Your task to perform on an android device: Turn on the flashlight Image 0: 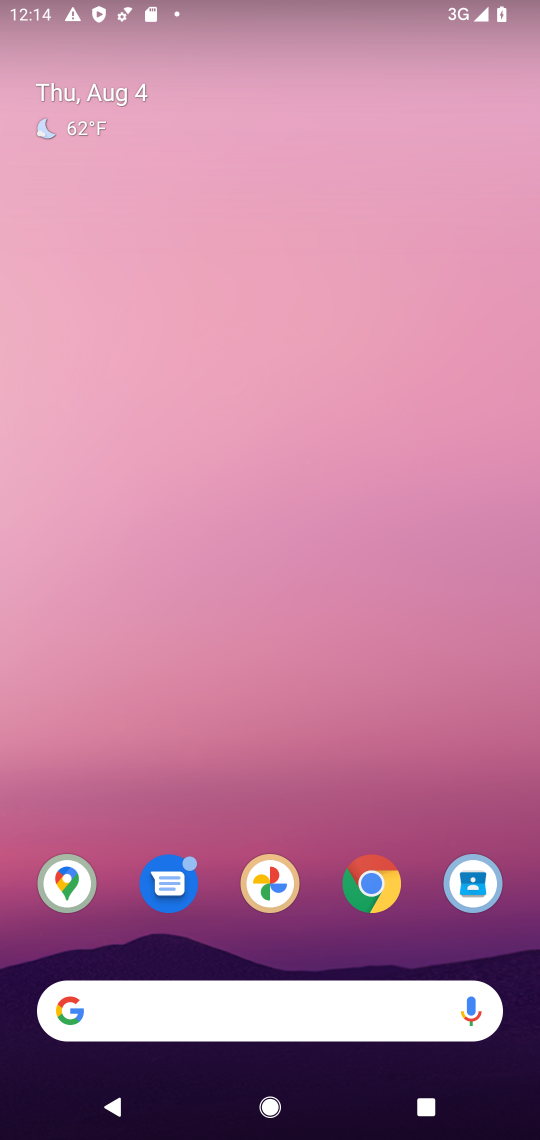
Step 0: drag from (309, 895) to (289, 183)
Your task to perform on an android device: Turn on the flashlight Image 1: 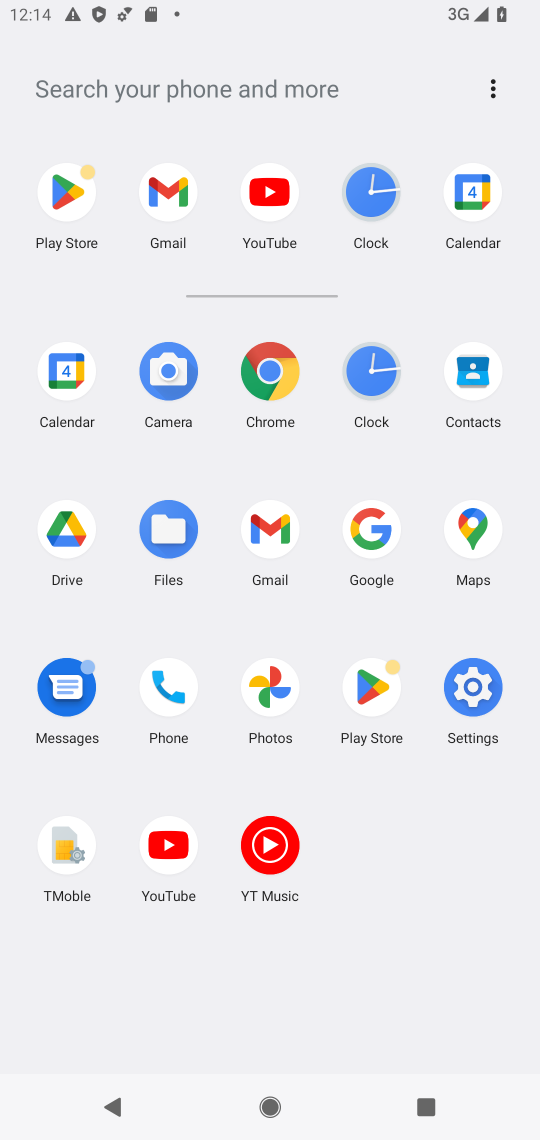
Step 1: click (486, 693)
Your task to perform on an android device: Turn on the flashlight Image 2: 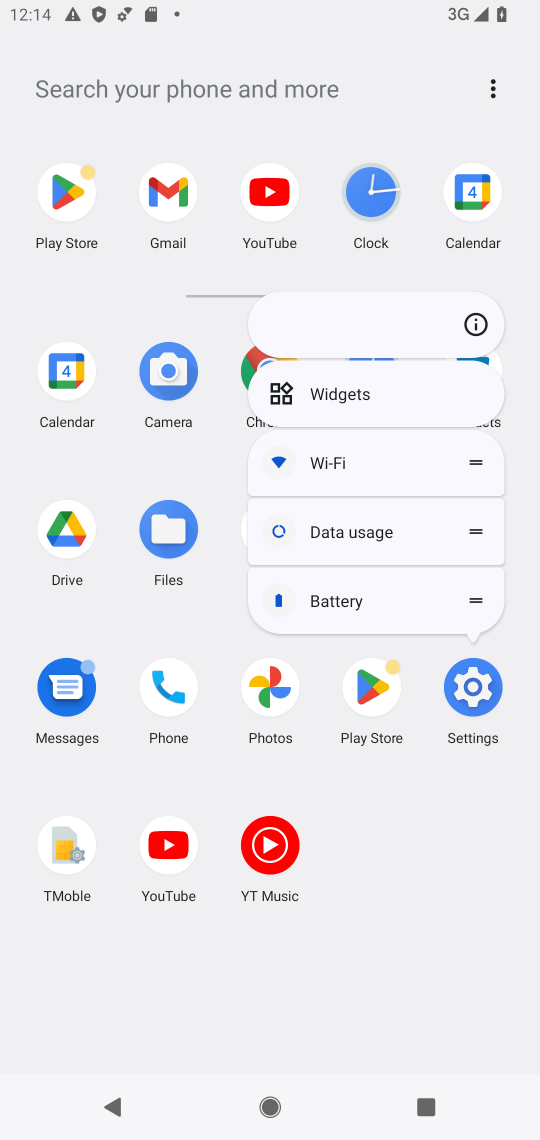
Step 2: click (501, 688)
Your task to perform on an android device: Turn on the flashlight Image 3: 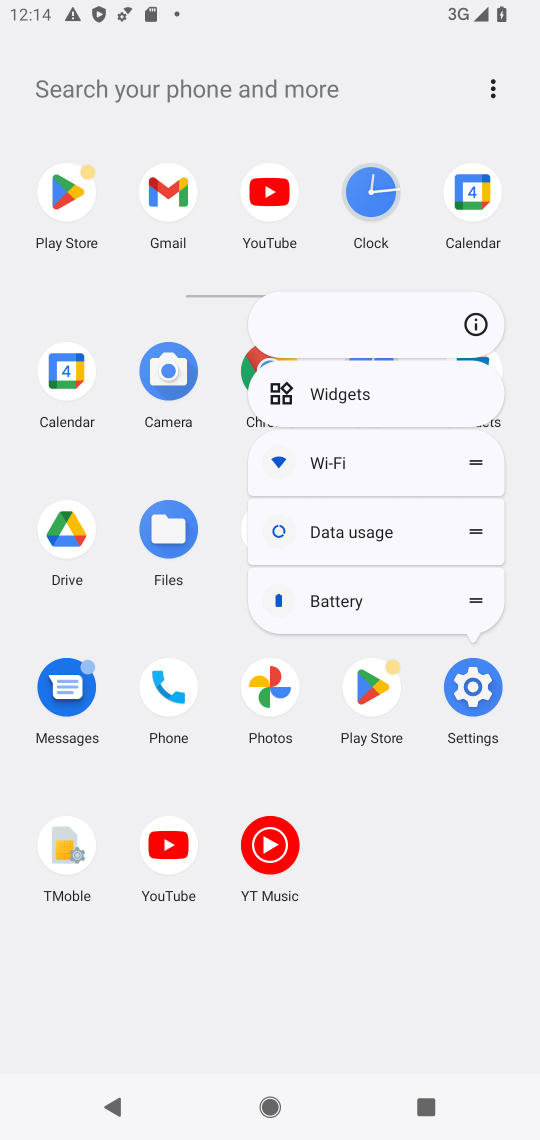
Step 3: click (486, 696)
Your task to perform on an android device: Turn on the flashlight Image 4: 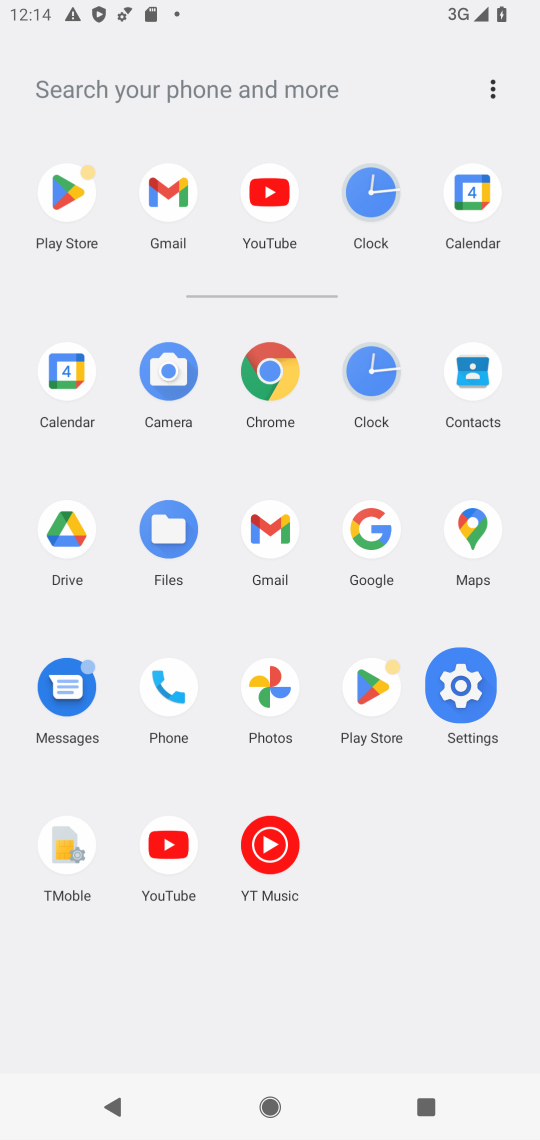
Step 4: click (477, 696)
Your task to perform on an android device: Turn on the flashlight Image 5: 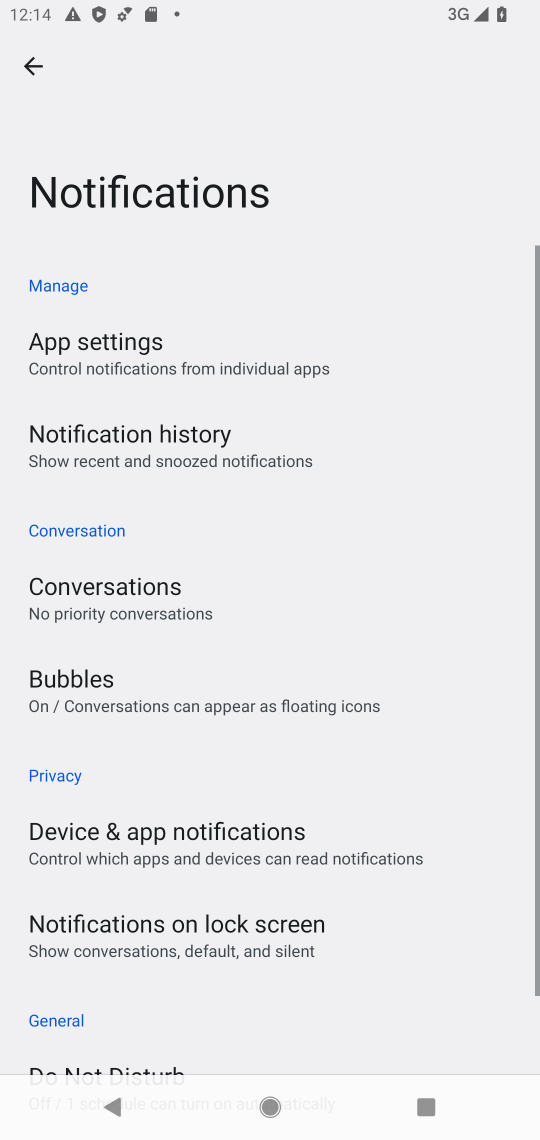
Step 5: drag from (381, 798) to (399, 570)
Your task to perform on an android device: Turn on the flashlight Image 6: 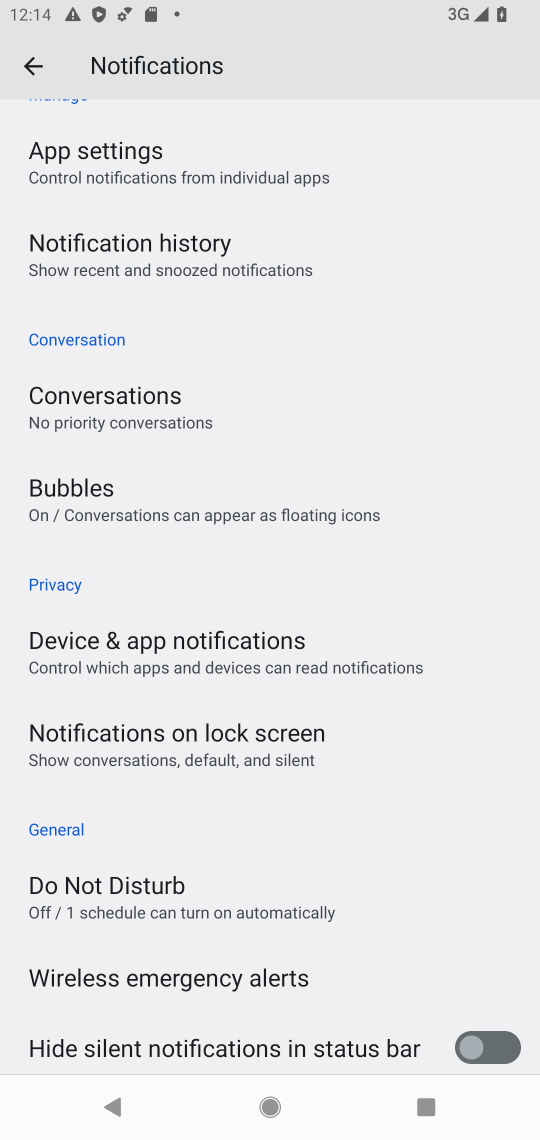
Step 6: click (46, 46)
Your task to perform on an android device: Turn on the flashlight Image 7: 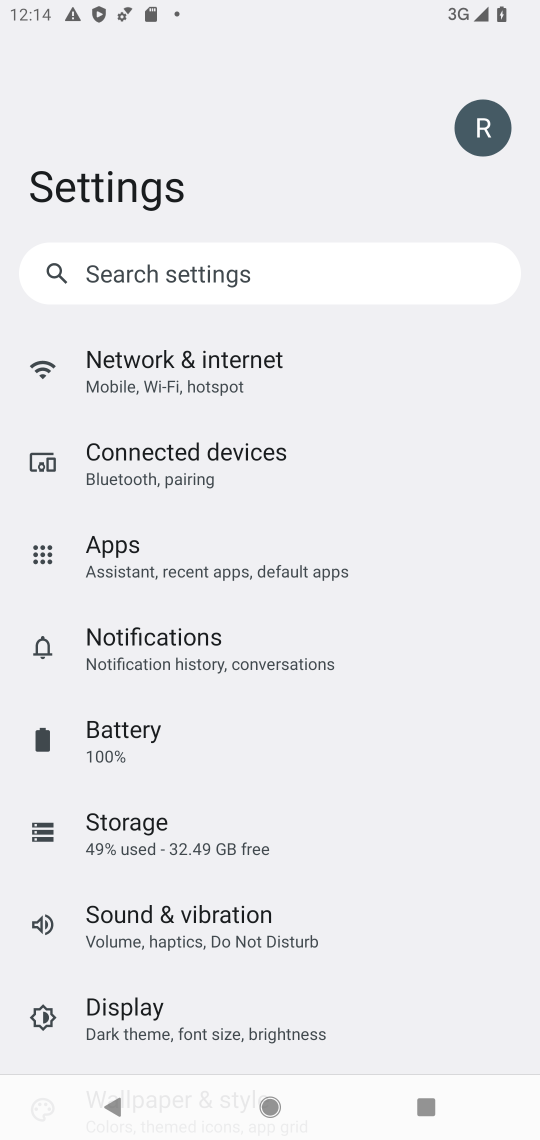
Step 7: click (314, 265)
Your task to perform on an android device: Turn on the flashlight Image 8: 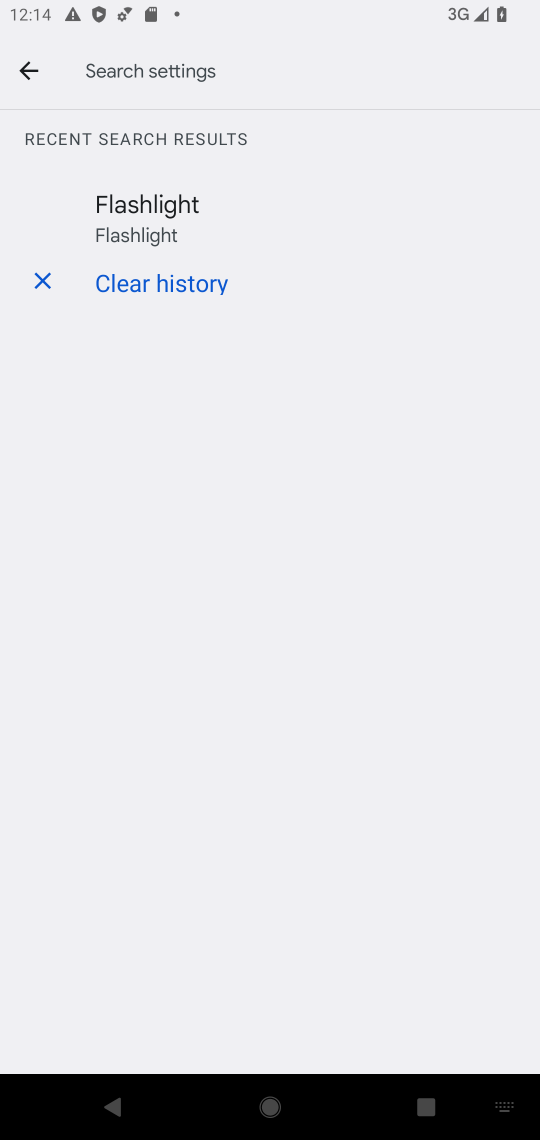
Step 8: click (137, 215)
Your task to perform on an android device: Turn on the flashlight Image 9: 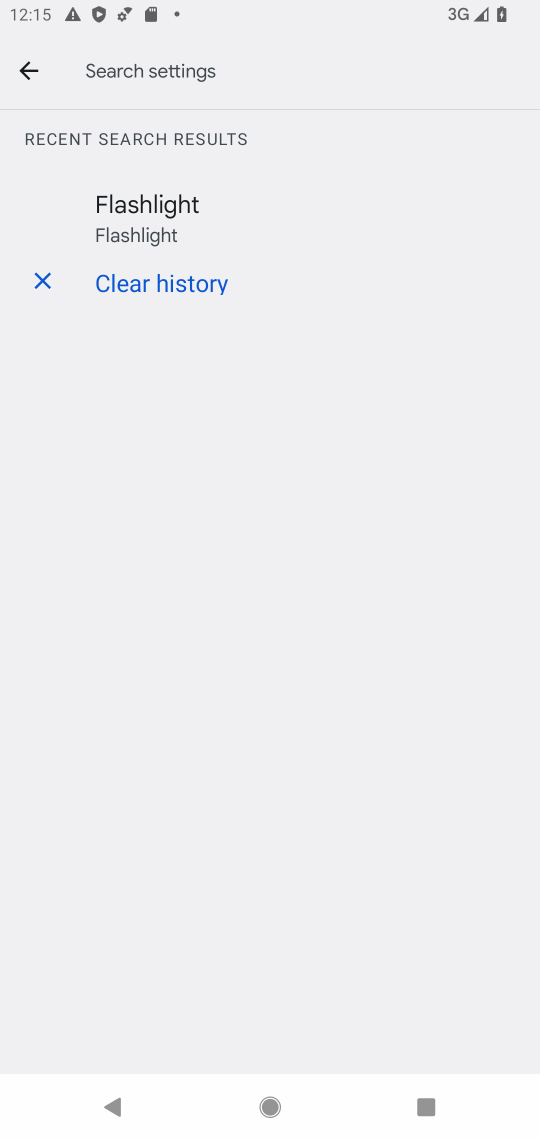
Step 9: drag from (321, 792) to (338, 284)
Your task to perform on an android device: Turn on the flashlight Image 10: 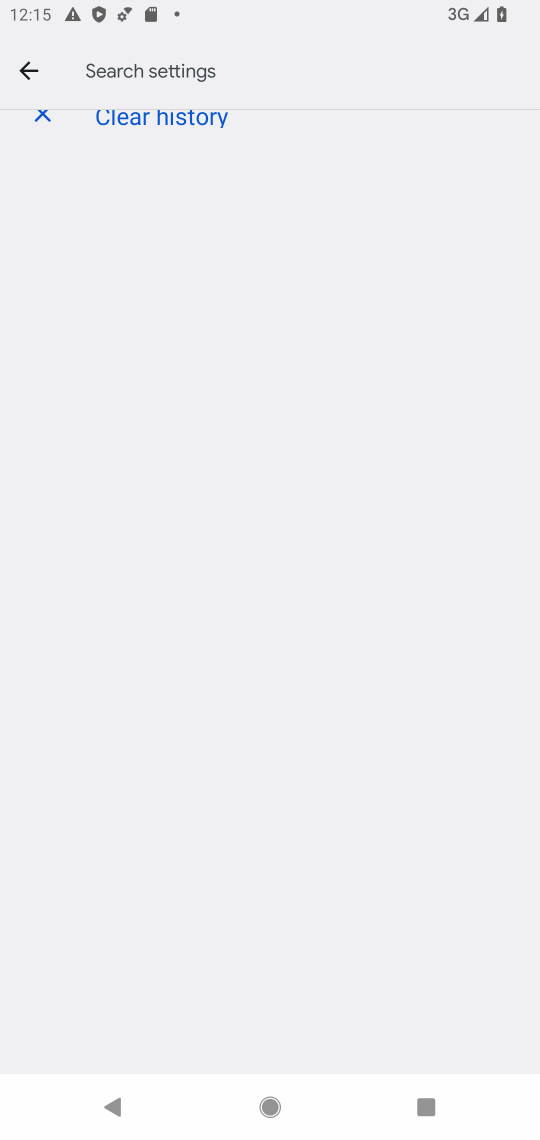
Step 10: drag from (247, 239) to (389, 1070)
Your task to perform on an android device: Turn on the flashlight Image 11: 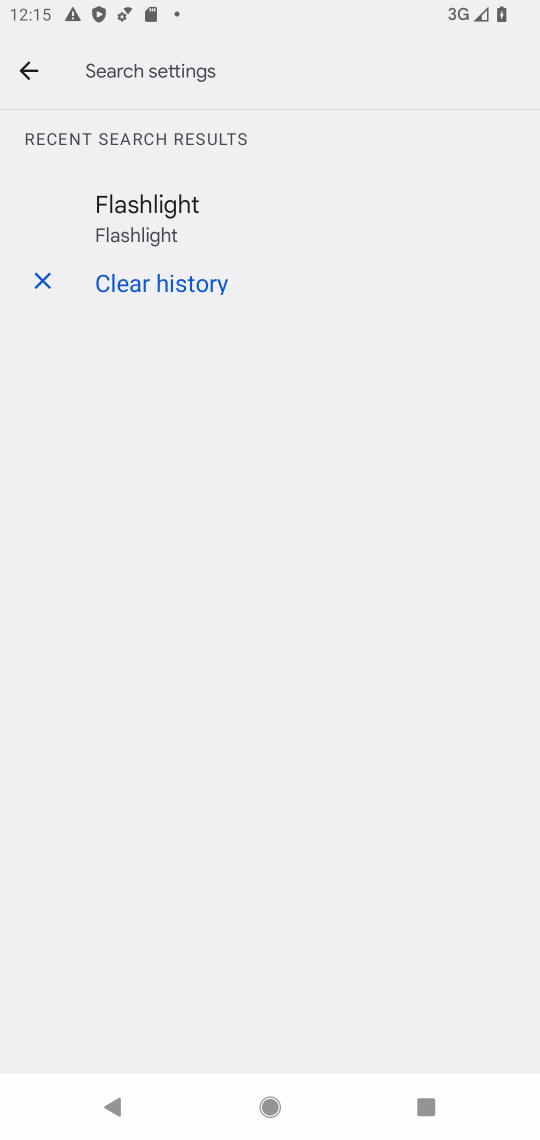
Step 11: click (231, 229)
Your task to perform on an android device: Turn on the flashlight Image 12: 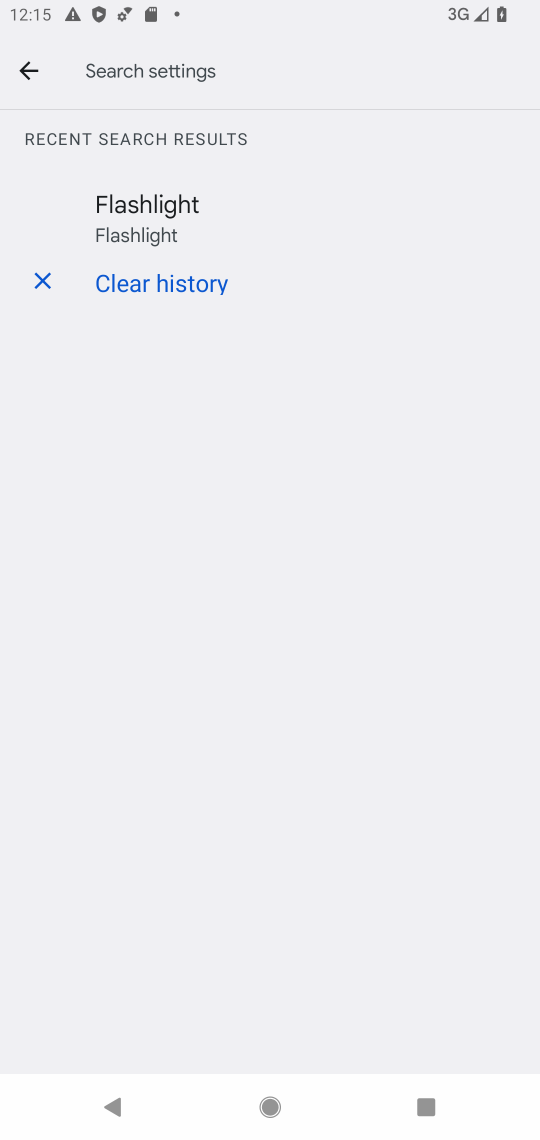
Step 12: click (242, 221)
Your task to perform on an android device: Turn on the flashlight Image 13: 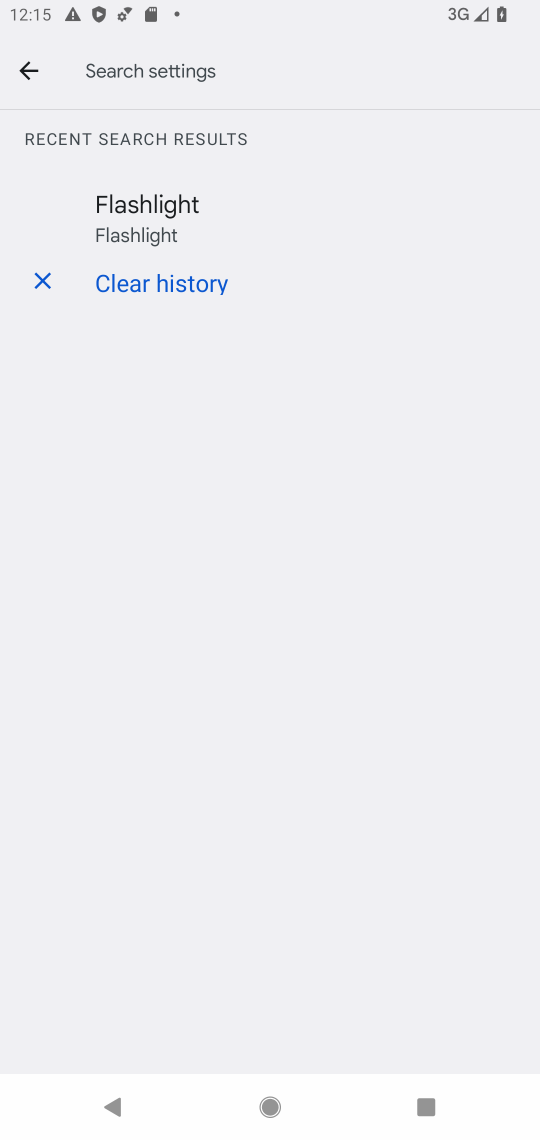
Step 13: drag from (223, 925) to (326, 564)
Your task to perform on an android device: Turn on the flashlight Image 14: 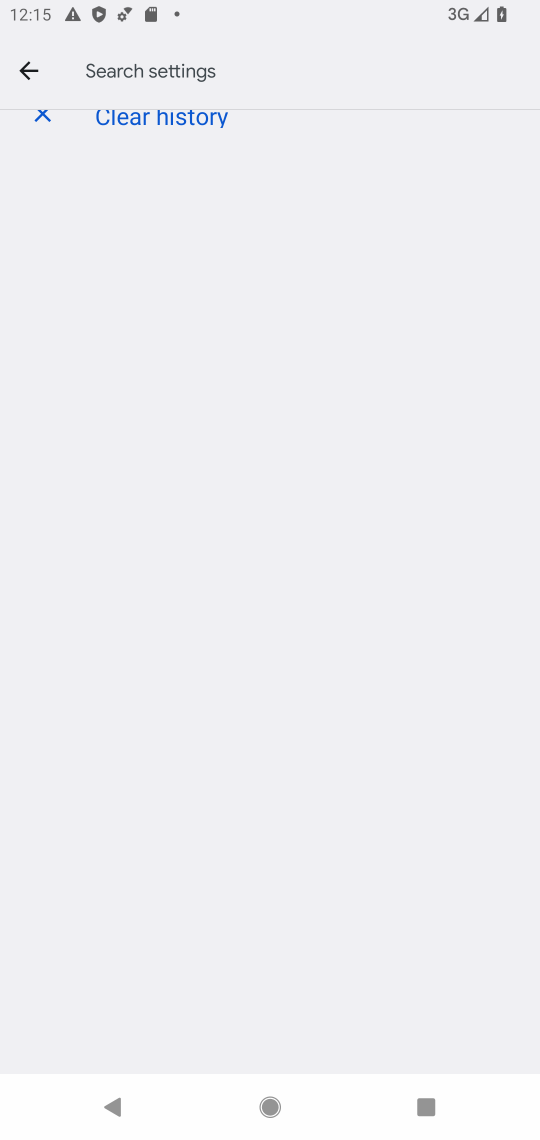
Step 14: drag from (448, 372) to (476, 992)
Your task to perform on an android device: Turn on the flashlight Image 15: 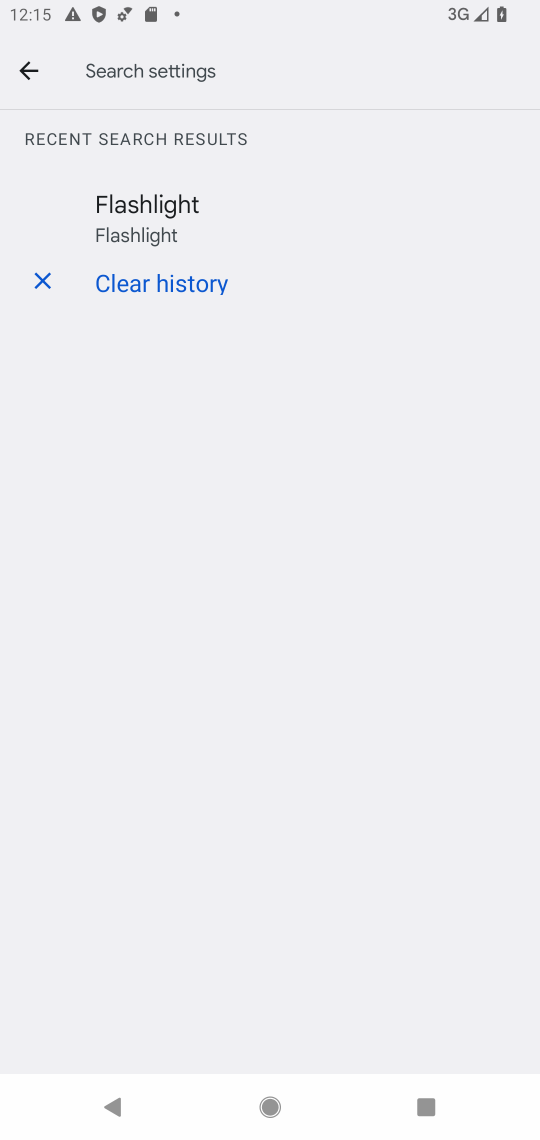
Step 15: click (303, 181)
Your task to perform on an android device: Turn on the flashlight Image 16: 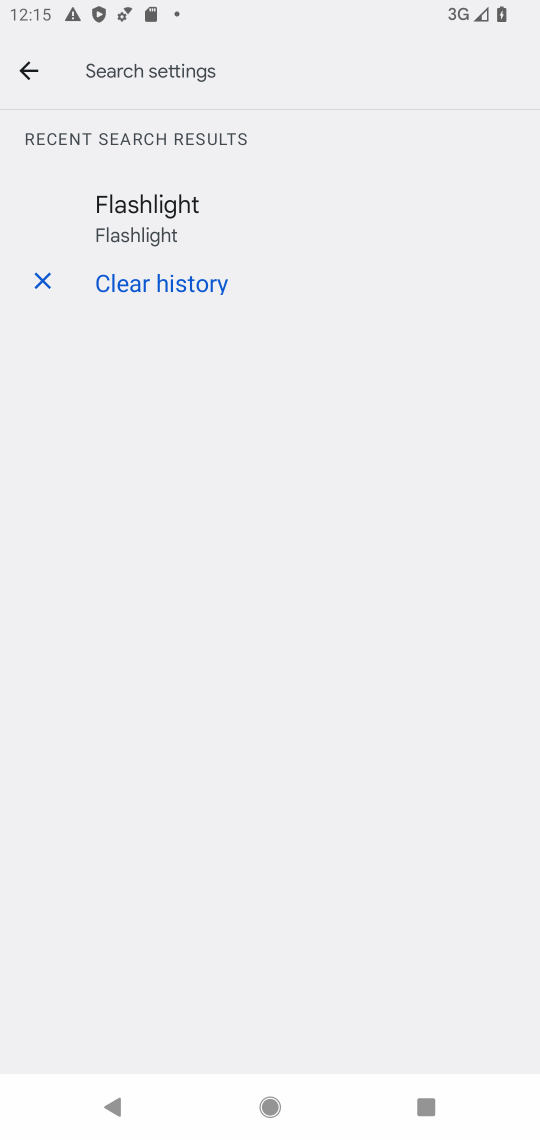
Step 16: drag from (232, 210) to (388, 670)
Your task to perform on an android device: Turn on the flashlight Image 17: 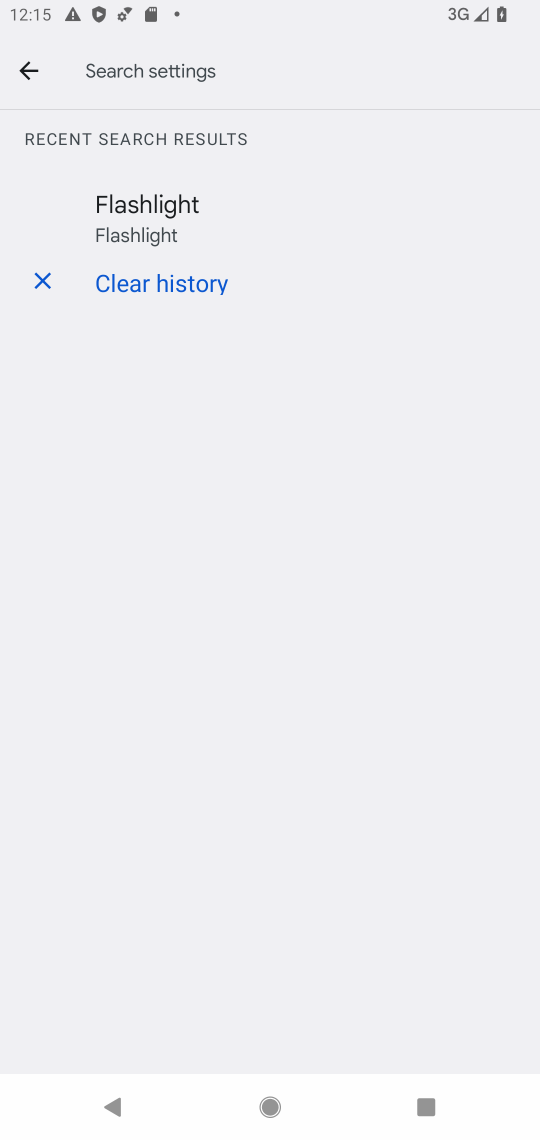
Step 17: click (256, 216)
Your task to perform on an android device: Turn on the flashlight Image 18: 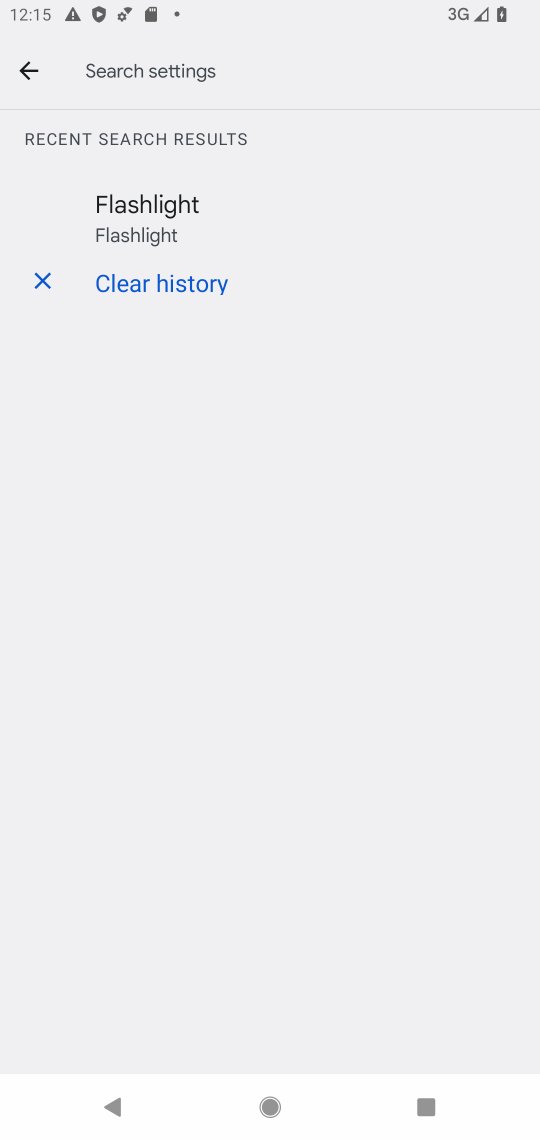
Step 18: task complete